Your task to perform on an android device: What is the recent news? Image 0: 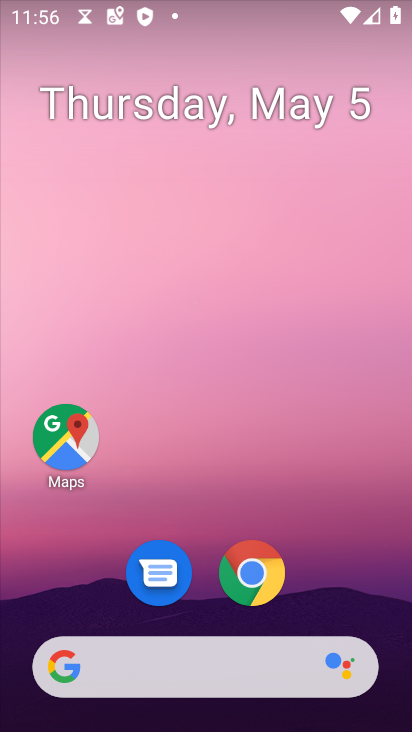
Step 0: drag from (329, 607) to (329, 341)
Your task to perform on an android device: What is the recent news? Image 1: 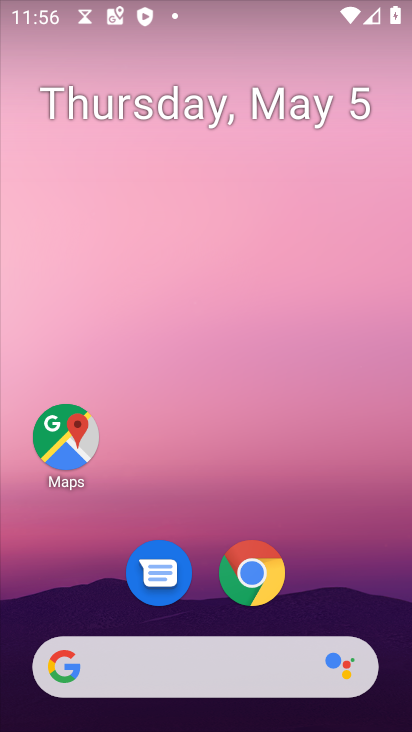
Step 1: drag from (330, 572) to (327, 281)
Your task to perform on an android device: What is the recent news? Image 2: 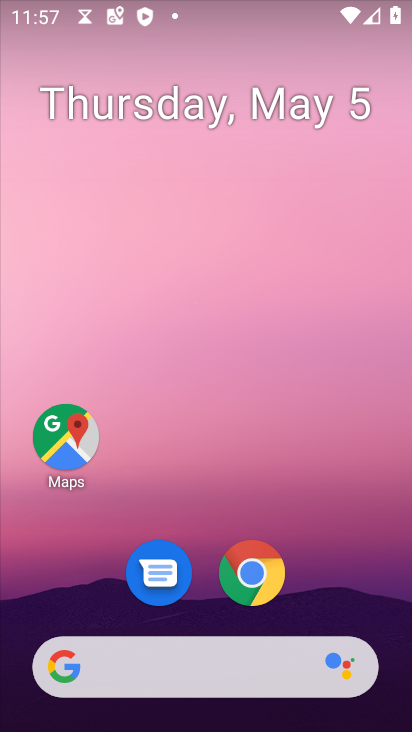
Step 2: drag from (330, 586) to (326, 284)
Your task to perform on an android device: What is the recent news? Image 3: 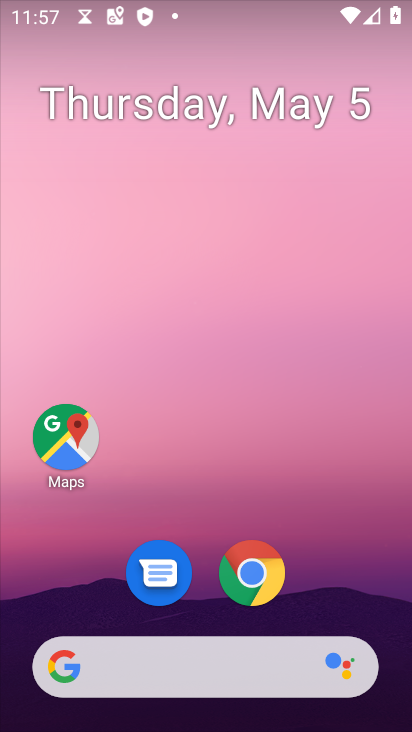
Step 3: drag from (326, 518) to (322, 204)
Your task to perform on an android device: What is the recent news? Image 4: 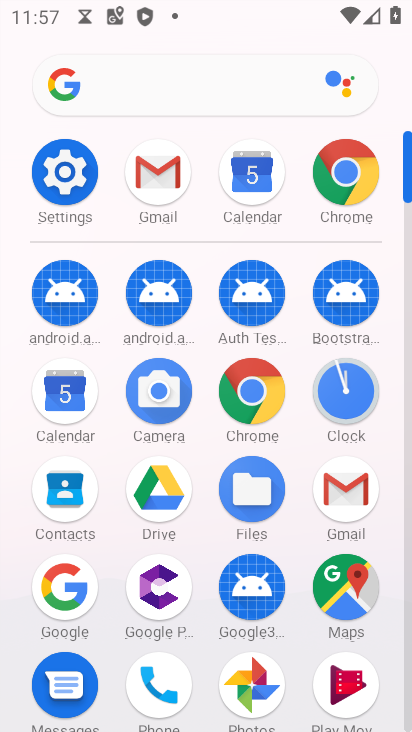
Step 4: click (248, 385)
Your task to perform on an android device: What is the recent news? Image 5: 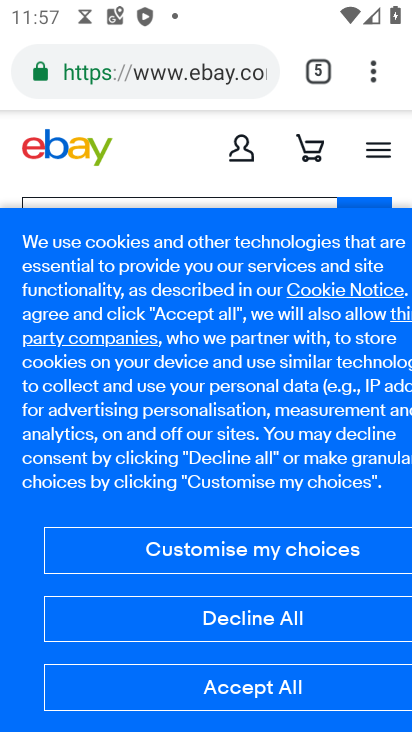
Step 5: click (366, 74)
Your task to perform on an android device: What is the recent news? Image 6: 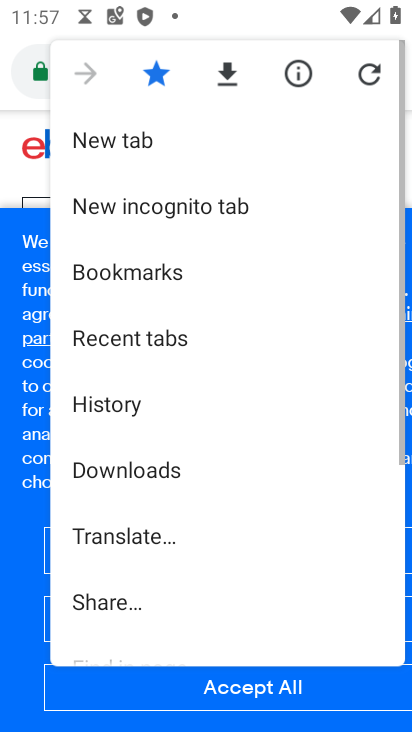
Step 6: click (190, 140)
Your task to perform on an android device: What is the recent news? Image 7: 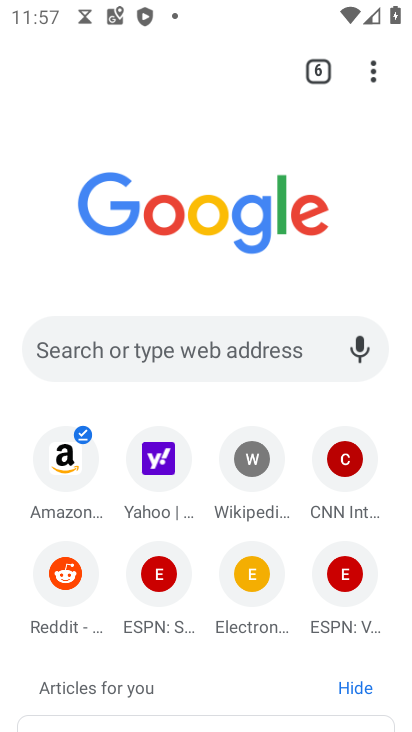
Step 7: click (235, 331)
Your task to perform on an android device: What is the recent news? Image 8: 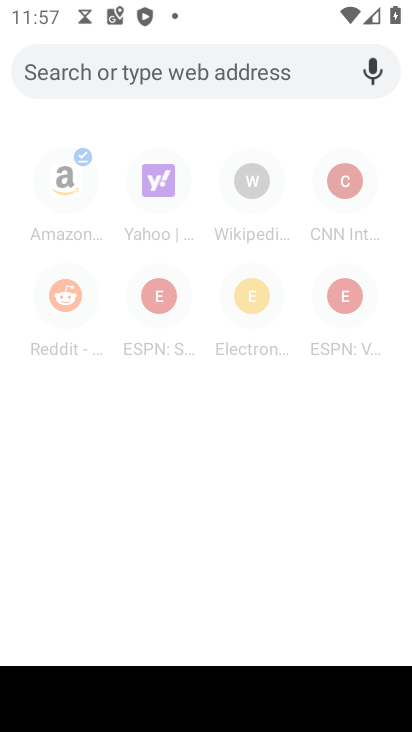
Step 8: type "recent news"
Your task to perform on an android device: What is the recent news? Image 9: 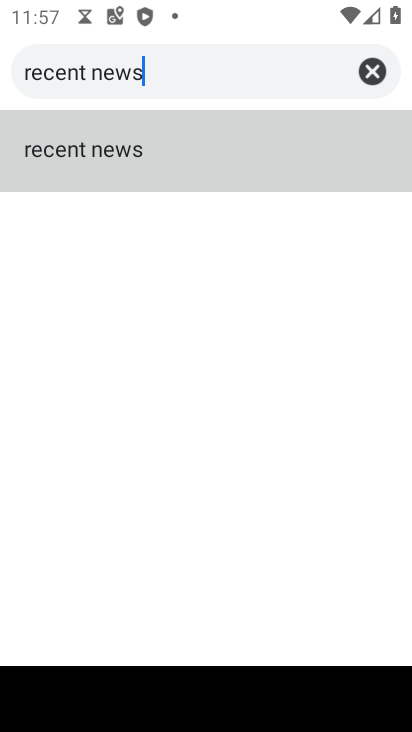
Step 9: click (115, 147)
Your task to perform on an android device: What is the recent news? Image 10: 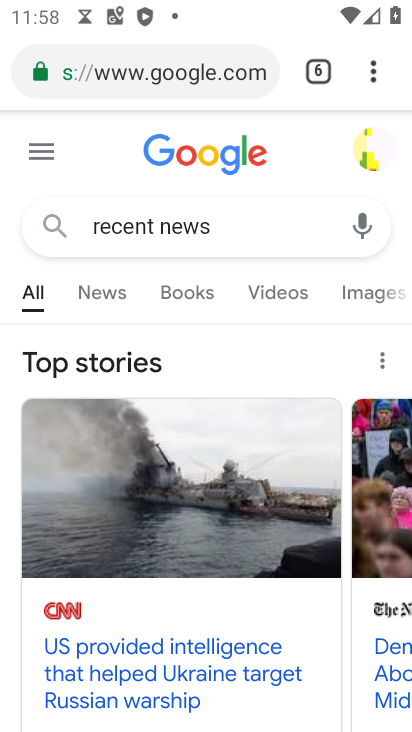
Step 10: task complete